Your task to perform on an android device: Toggle the flashlight Image 0: 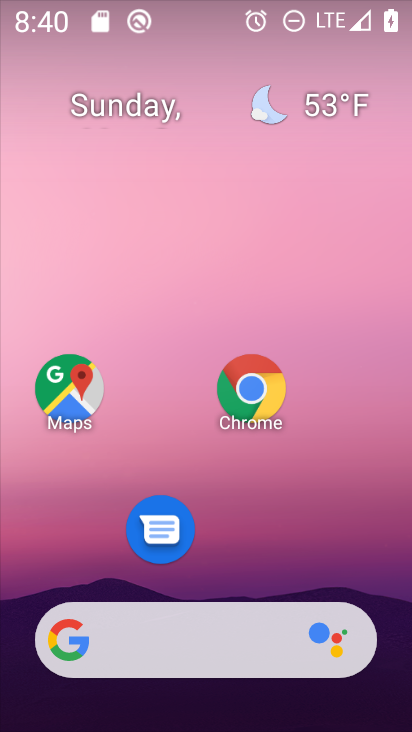
Step 0: drag from (250, 580) to (282, 134)
Your task to perform on an android device: Toggle the flashlight Image 1: 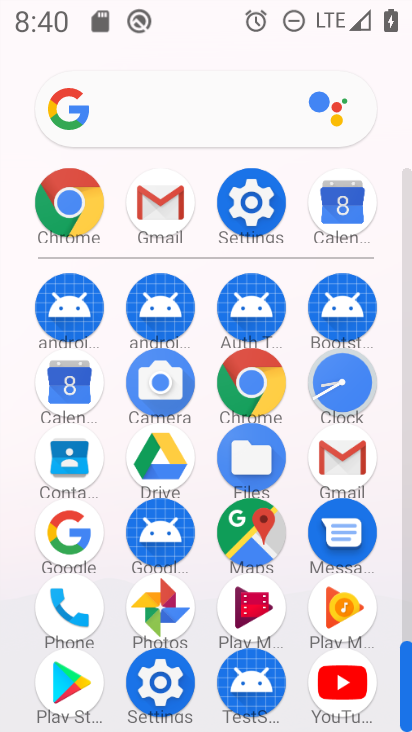
Step 1: click (254, 216)
Your task to perform on an android device: Toggle the flashlight Image 2: 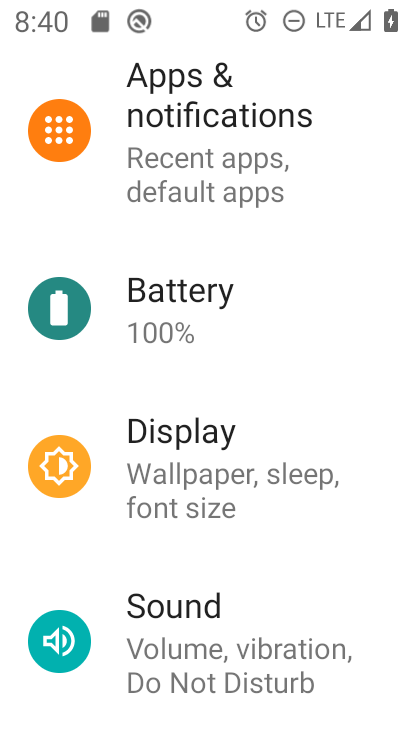
Step 2: drag from (260, 220) to (326, 612)
Your task to perform on an android device: Toggle the flashlight Image 3: 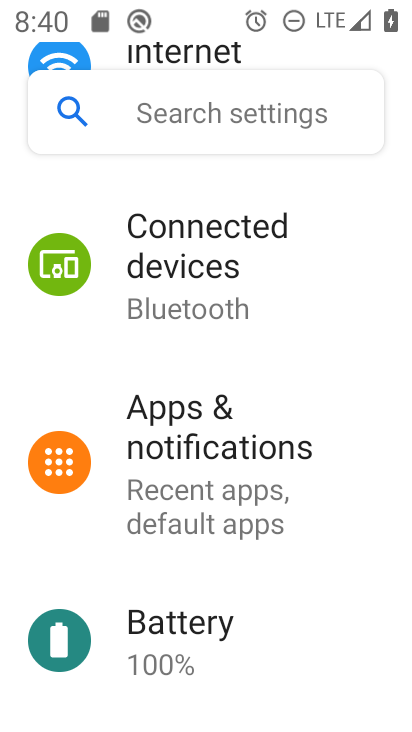
Step 3: click (218, 126)
Your task to perform on an android device: Toggle the flashlight Image 4: 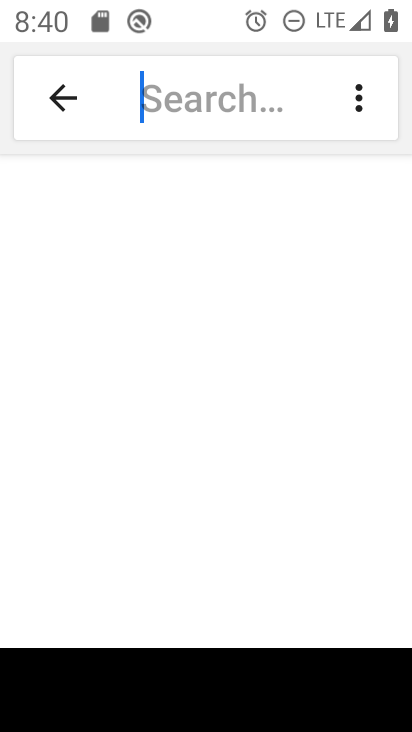
Step 4: type "flashlight"
Your task to perform on an android device: Toggle the flashlight Image 5: 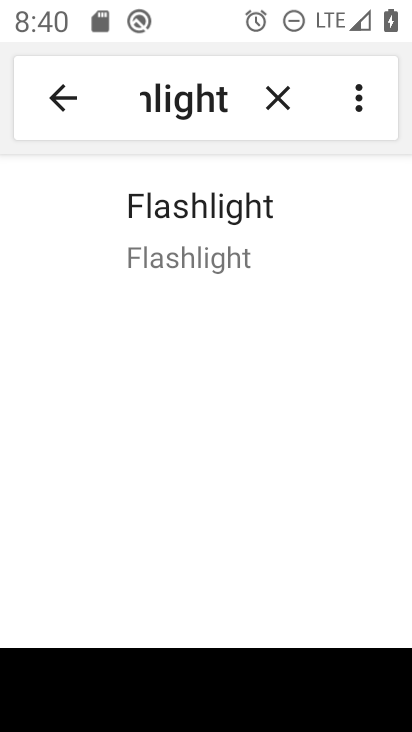
Step 5: click (201, 231)
Your task to perform on an android device: Toggle the flashlight Image 6: 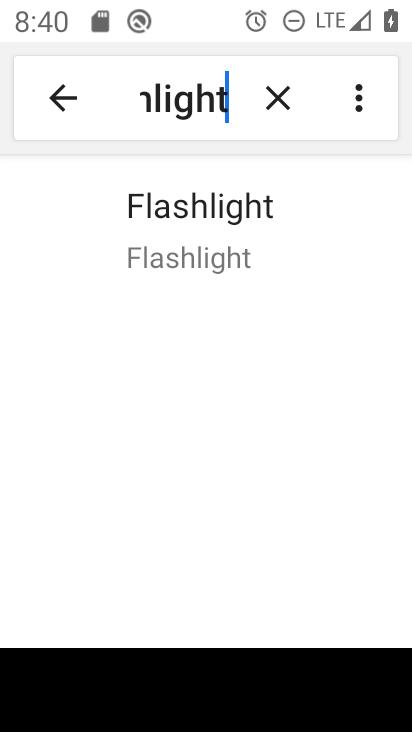
Step 6: click (200, 233)
Your task to perform on an android device: Toggle the flashlight Image 7: 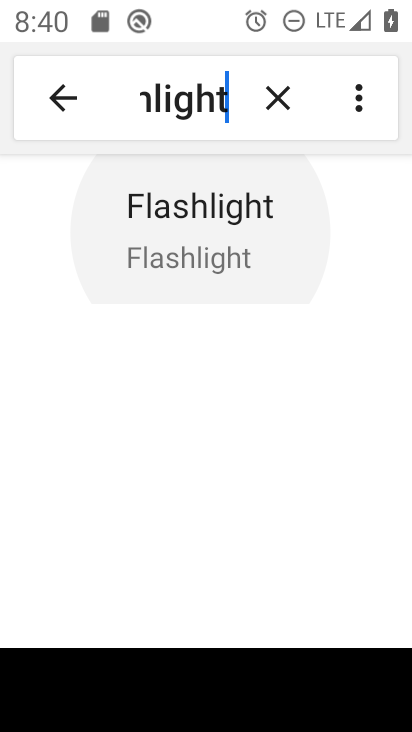
Step 7: click (200, 234)
Your task to perform on an android device: Toggle the flashlight Image 8: 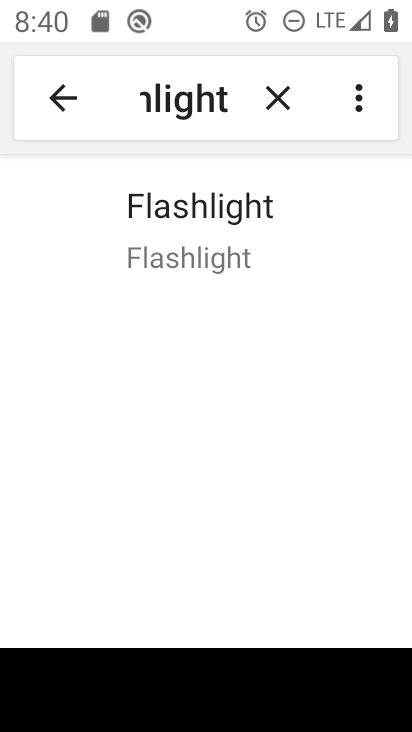
Step 8: task complete